Your task to perform on an android device: open wifi settings Image 0: 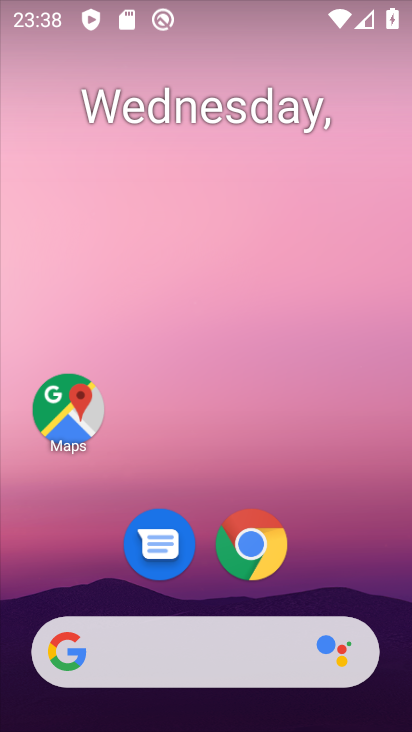
Step 0: drag from (235, 4) to (228, 501)
Your task to perform on an android device: open wifi settings Image 1: 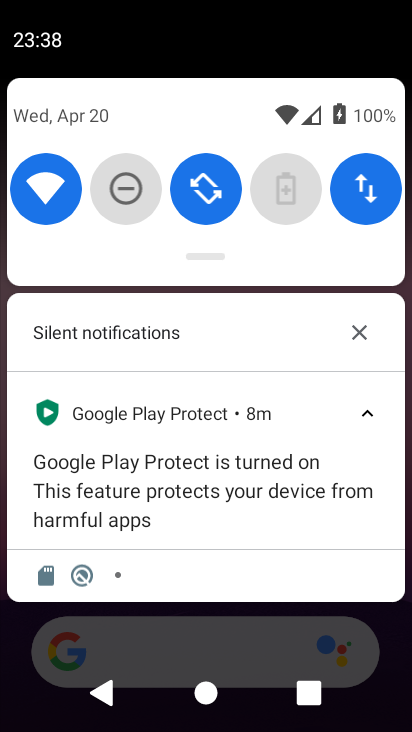
Step 1: click (50, 187)
Your task to perform on an android device: open wifi settings Image 2: 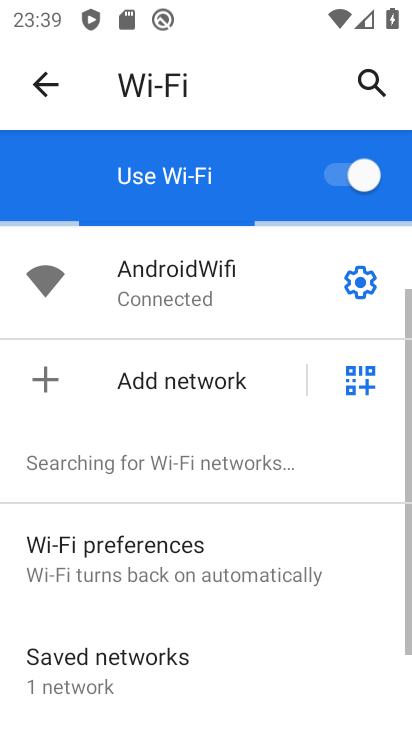
Step 2: task complete